Your task to perform on an android device: open device folders in google photos Image 0: 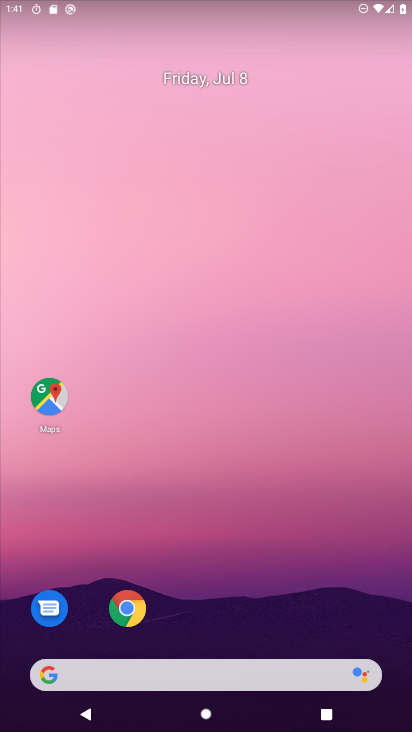
Step 0: drag from (232, 651) to (192, 99)
Your task to perform on an android device: open device folders in google photos Image 1: 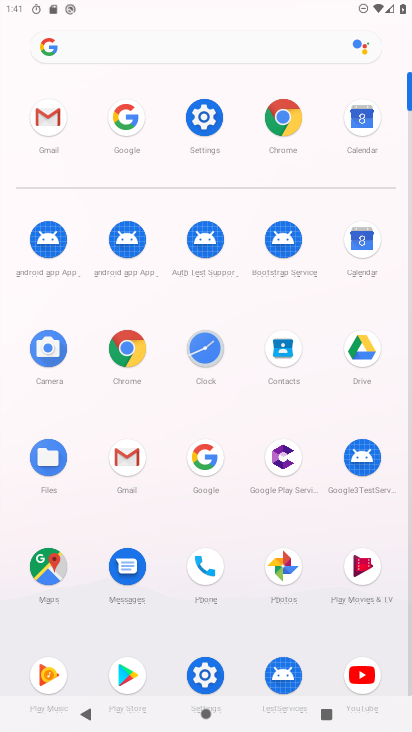
Step 1: click (280, 571)
Your task to perform on an android device: open device folders in google photos Image 2: 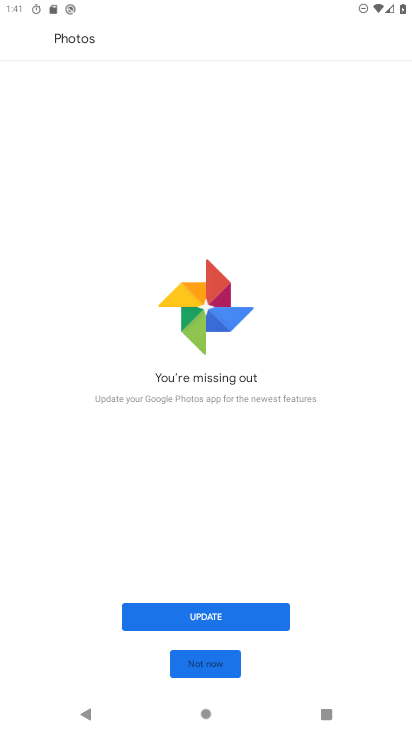
Step 2: task complete